Your task to perform on an android device: open the mobile data screen to see how much data has been used Image 0: 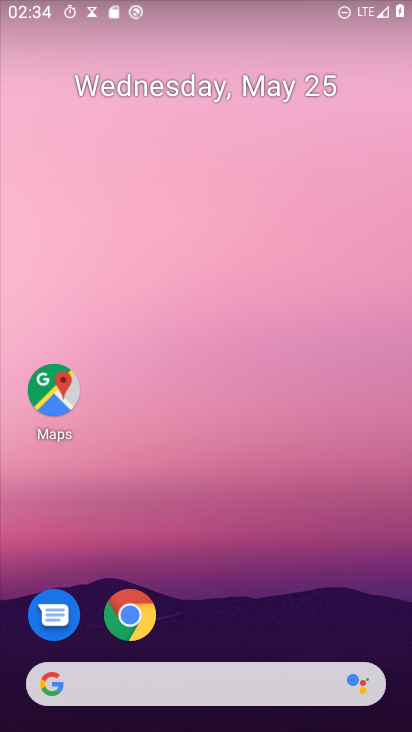
Step 0: drag from (274, 696) to (241, 131)
Your task to perform on an android device: open the mobile data screen to see how much data has been used Image 1: 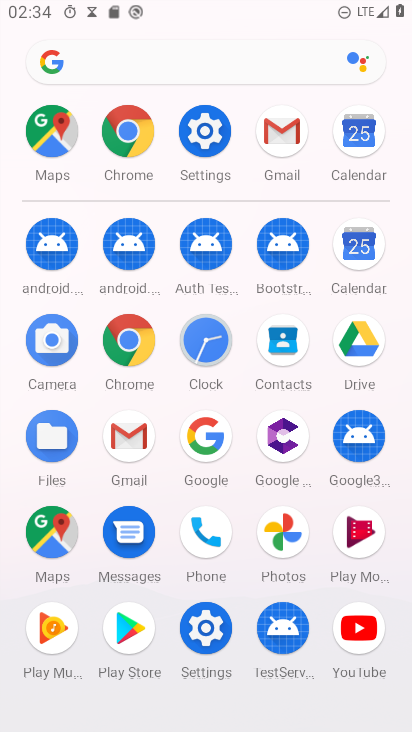
Step 1: click (192, 145)
Your task to perform on an android device: open the mobile data screen to see how much data has been used Image 2: 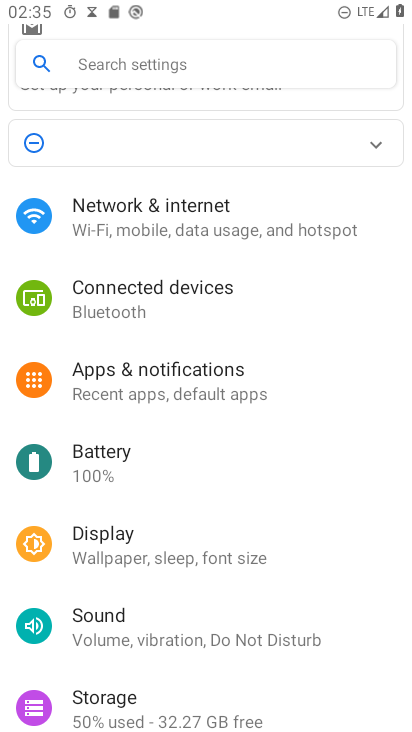
Step 2: click (172, 67)
Your task to perform on an android device: open the mobile data screen to see how much data has been used Image 3: 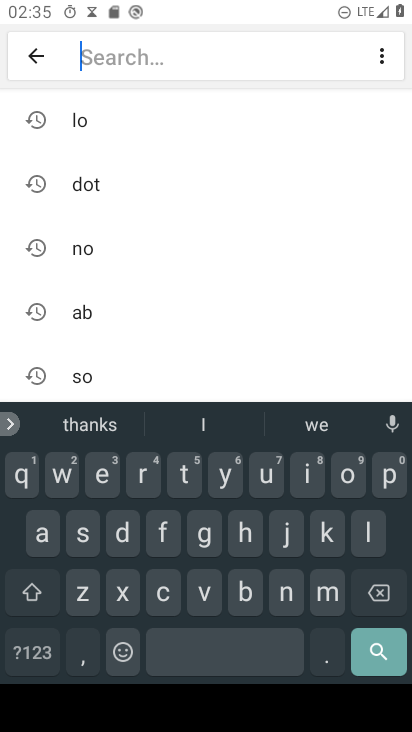
Step 3: drag from (134, 339) to (156, 234)
Your task to perform on an android device: open the mobile data screen to see how much data has been used Image 4: 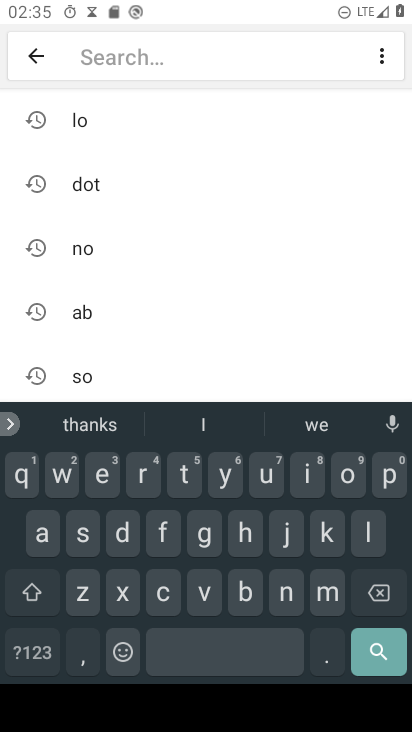
Step 4: press back button
Your task to perform on an android device: open the mobile data screen to see how much data has been used Image 5: 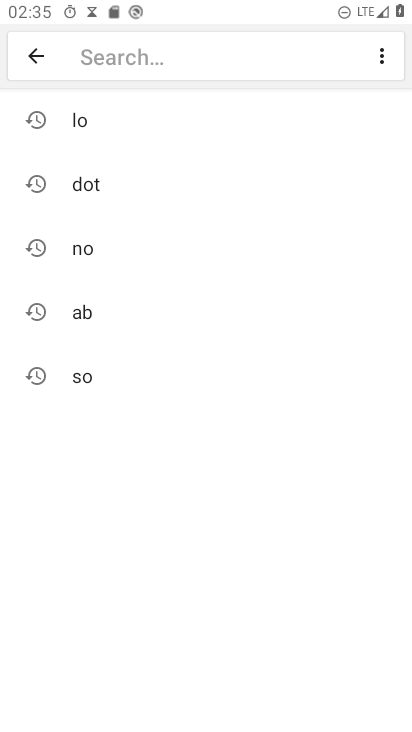
Step 5: click (108, 54)
Your task to perform on an android device: open the mobile data screen to see how much data has been used Image 6: 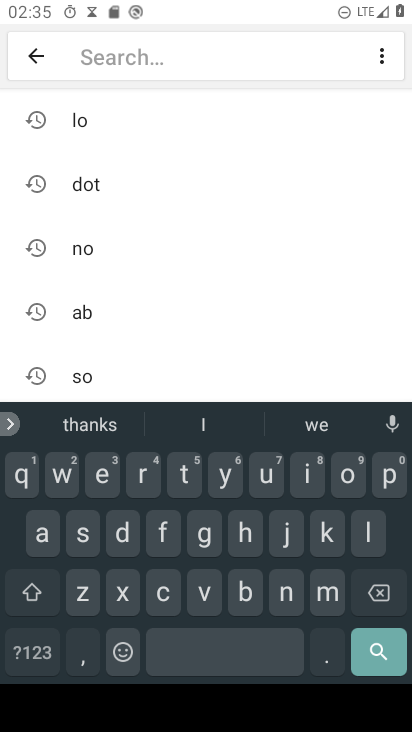
Step 6: click (125, 540)
Your task to perform on an android device: open the mobile data screen to see how much data has been used Image 7: 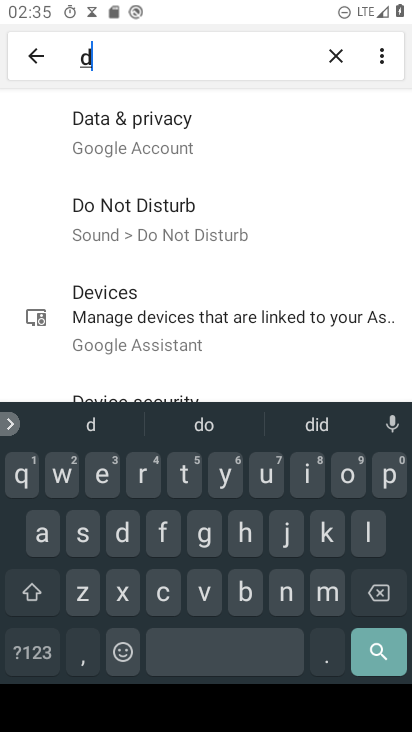
Step 7: click (48, 544)
Your task to perform on an android device: open the mobile data screen to see how much data has been used Image 8: 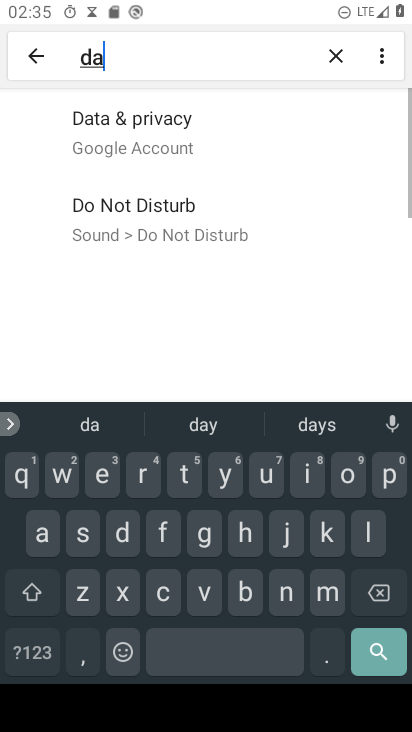
Step 8: click (192, 481)
Your task to perform on an android device: open the mobile data screen to see how much data has been used Image 9: 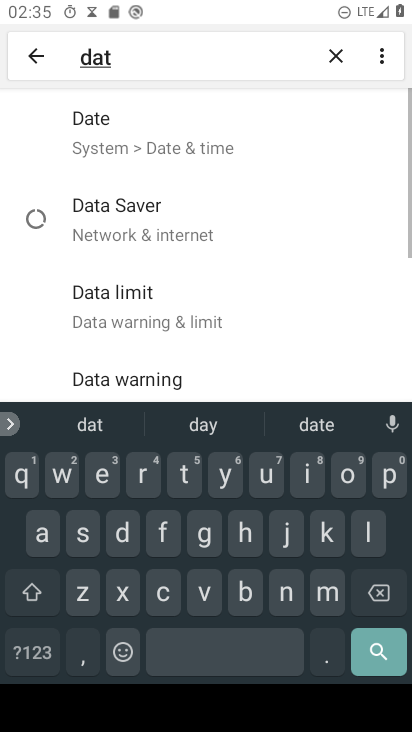
Step 9: click (41, 534)
Your task to perform on an android device: open the mobile data screen to see how much data has been used Image 10: 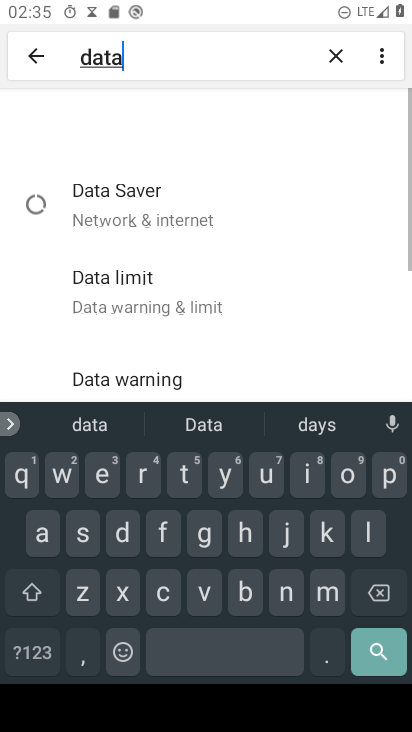
Step 10: click (223, 661)
Your task to perform on an android device: open the mobile data screen to see how much data has been used Image 11: 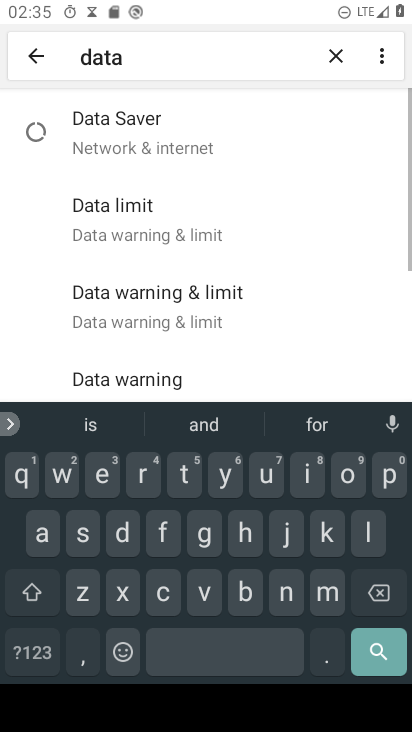
Step 11: click (263, 477)
Your task to perform on an android device: open the mobile data screen to see how much data has been used Image 12: 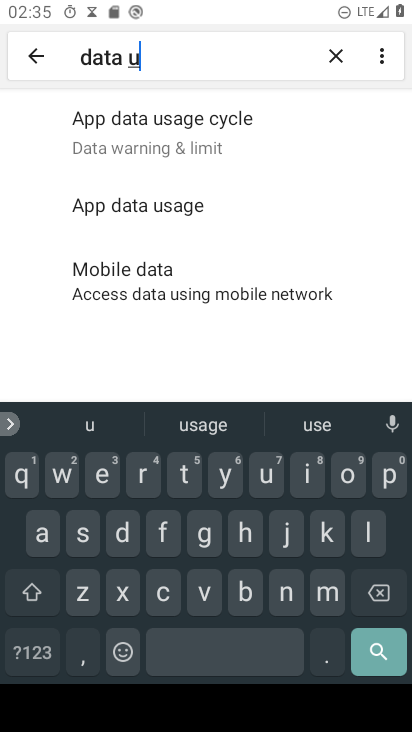
Step 12: click (159, 202)
Your task to perform on an android device: open the mobile data screen to see how much data has been used Image 13: 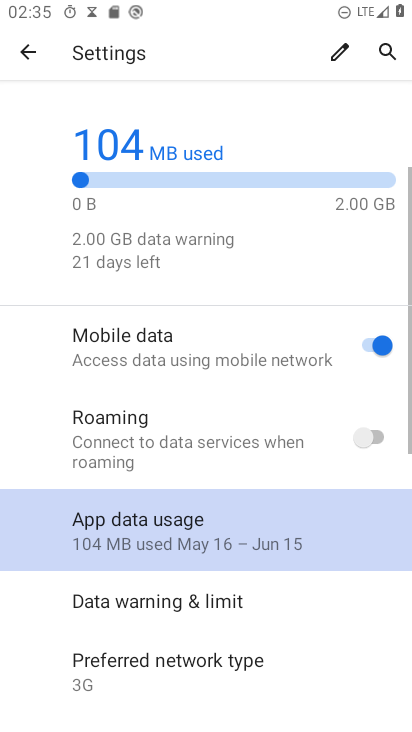
Step 13: task complete